Your task to perform on an android device: Go to ESPN.com Image 0: 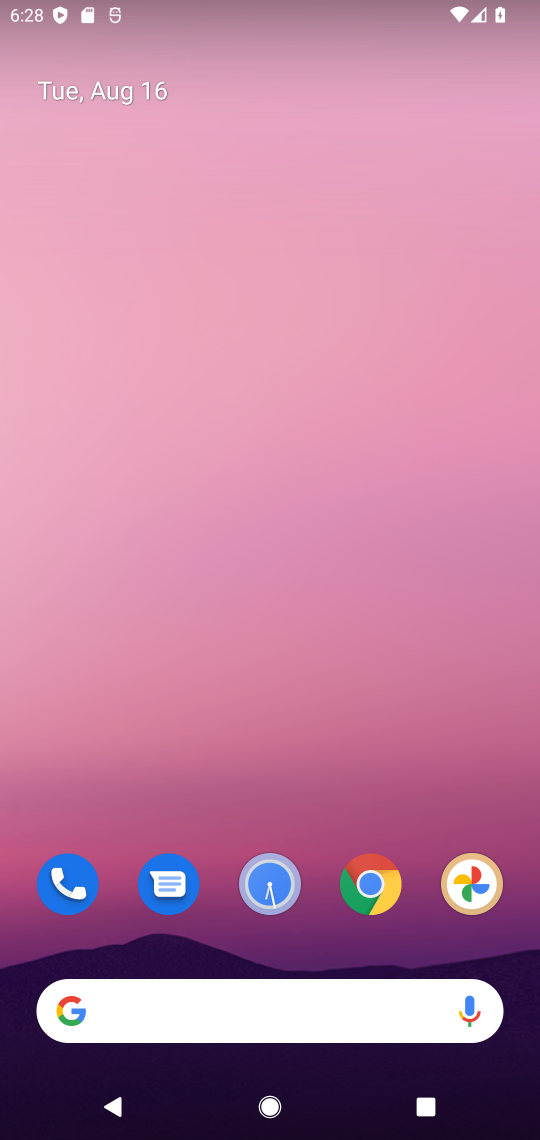
Step 0: press home button
Your task to perform on an android device: Go to ESPN.com Image 1: 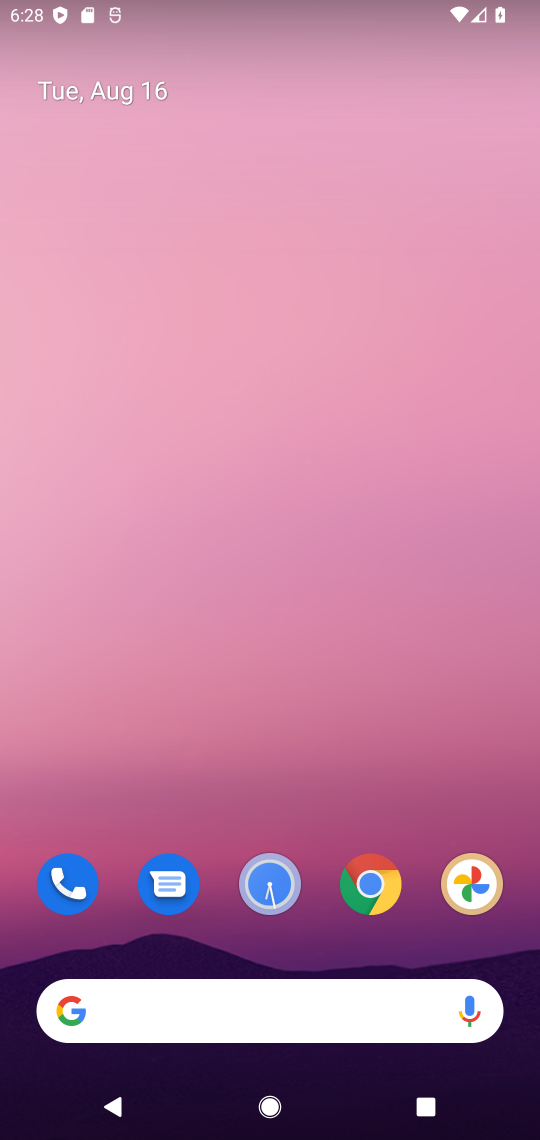
Step 1: click (78, 1021)
Your task to perform on an android device: Go to ESPN.com Image 2: 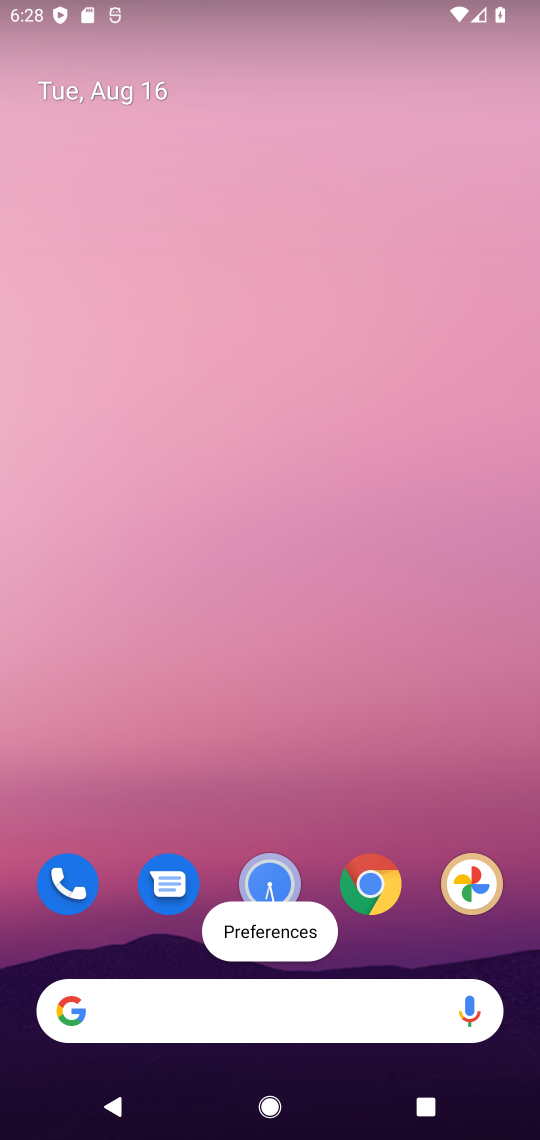
Step 2: click (56, 1026)
Your task to perform on an android device: Go to ESPN.com Image 3: 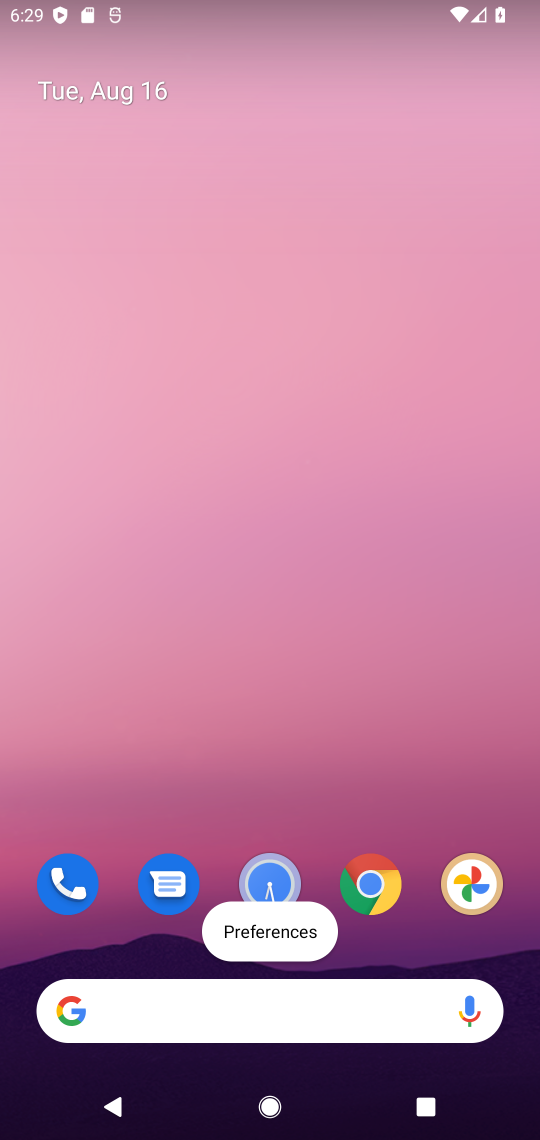
Step 3: click (94, 1010)
Your task to perform on an android device: Go to ESPN.com Image 4: 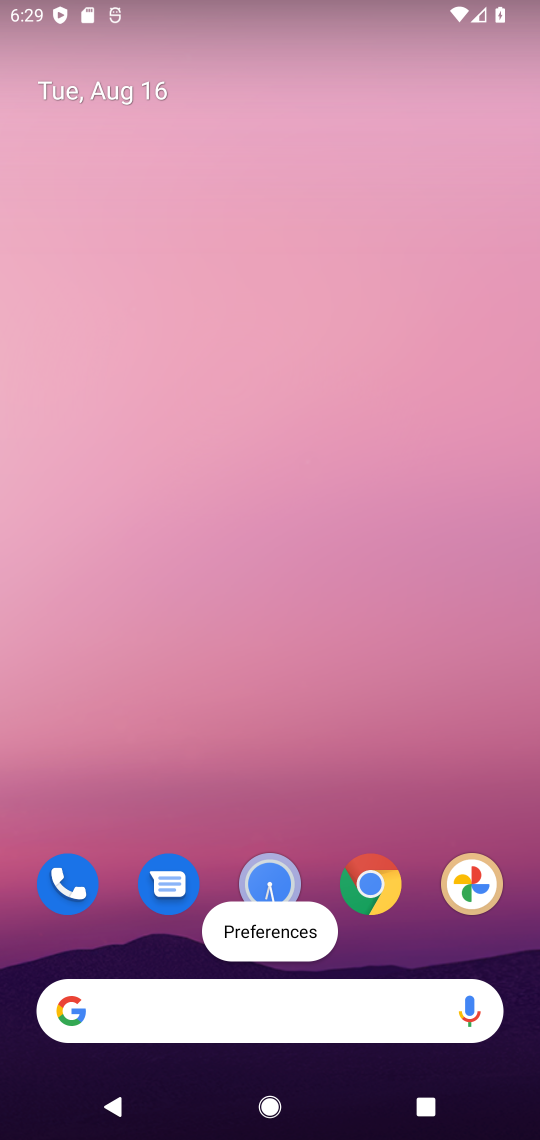
Step 4: click (72, 1016)
Your task to perform on an android device: Go to ESPN.com Image 5: 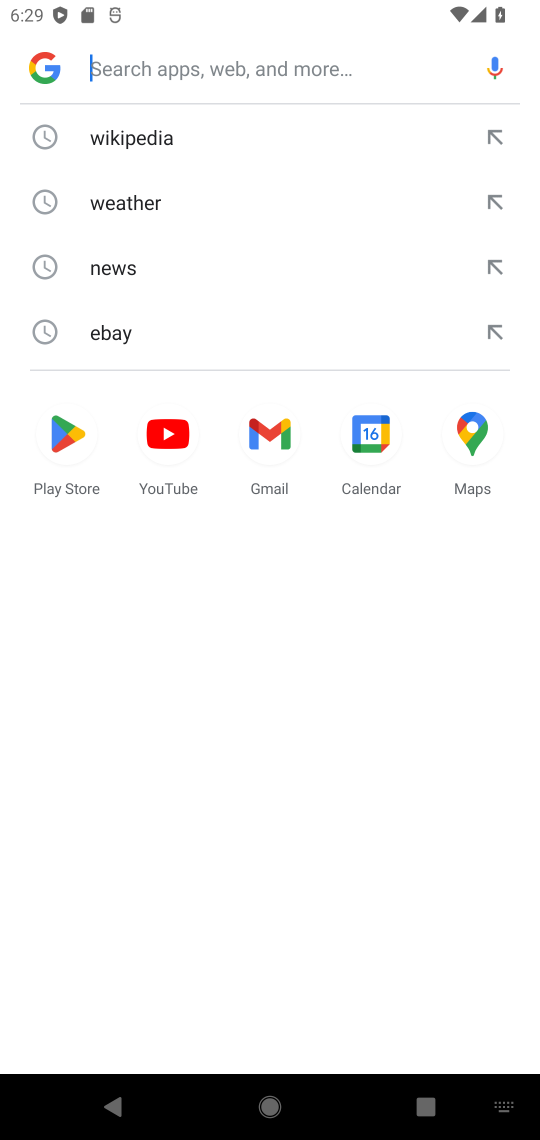
Step 5: type "ESPN.com"
Your task to perform on an android device: Go to ESPN.com Image 6: 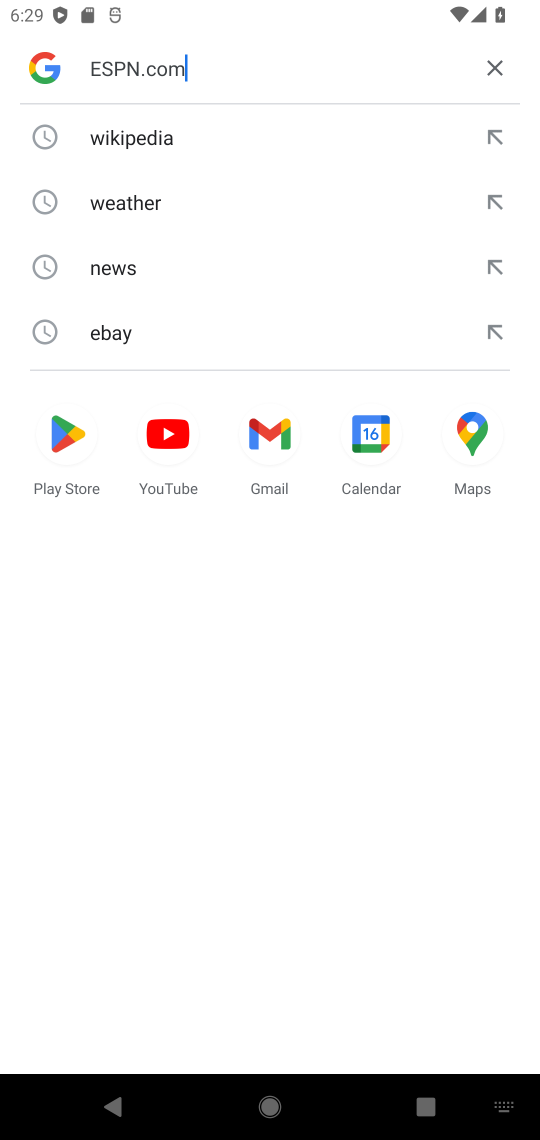
Step 6: press enter
Your task to perform on an android device: Go to ESPN.com Image 7: 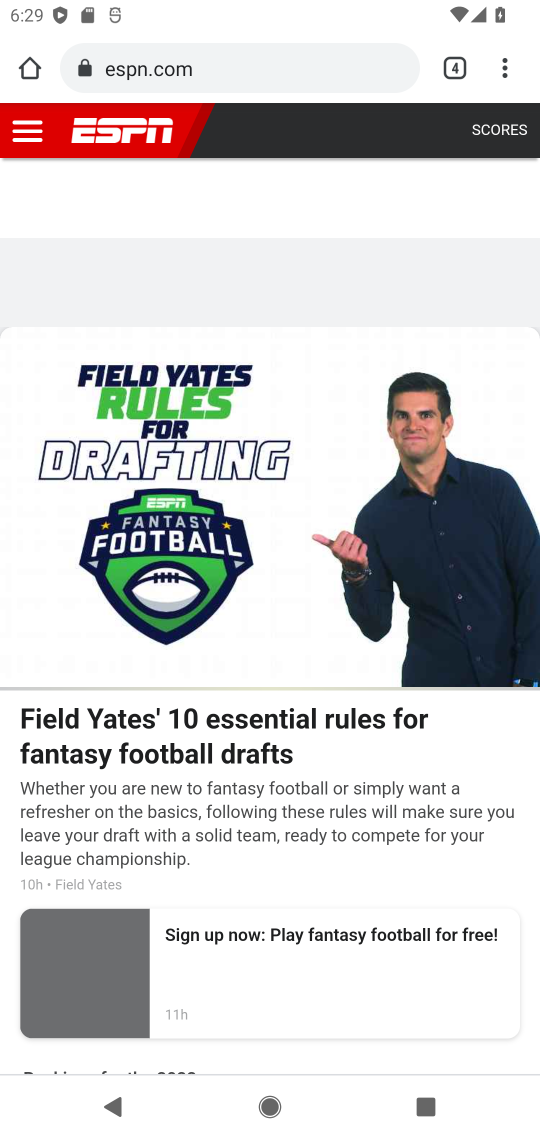
Step 7: task complete